Your task to perform on an android device: choose inbox layout in the gmail app Image 0: 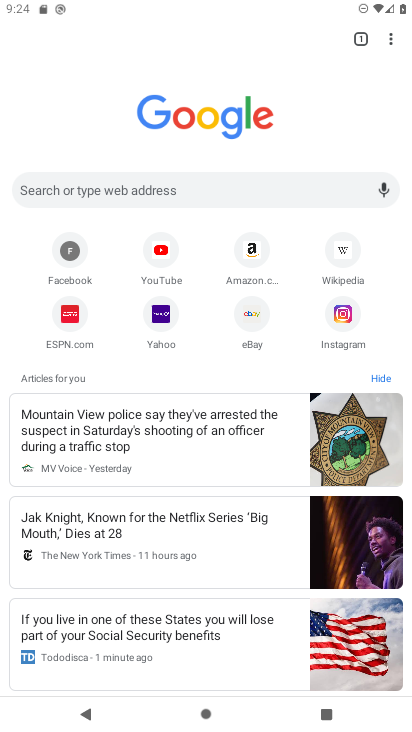
Step 0: press home button
Your task to perform on an android device: choose inbox layout in the gmail app Image 1: 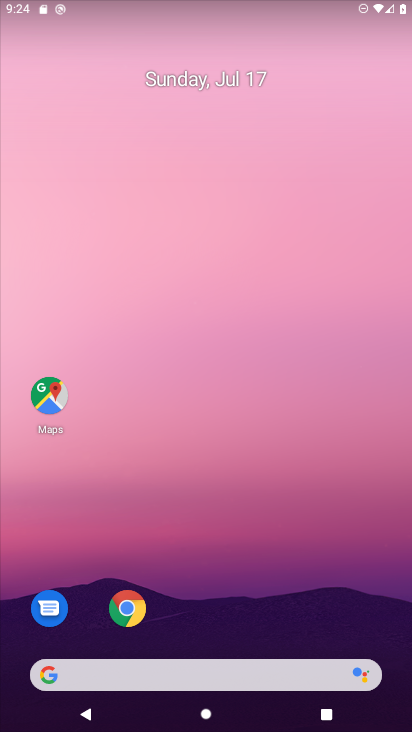
Step 1: drag from (163, 667) to (276, 120)
Your task to perform on an android device: choose inbox layout in the gmail app Image 2: 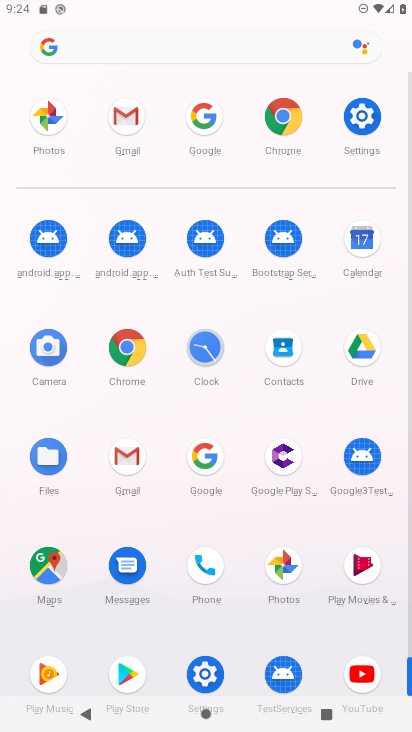
Step 2: click (122, 117)
Your task to perform on an android device: choose inbox layout in the gmail app Image 3: 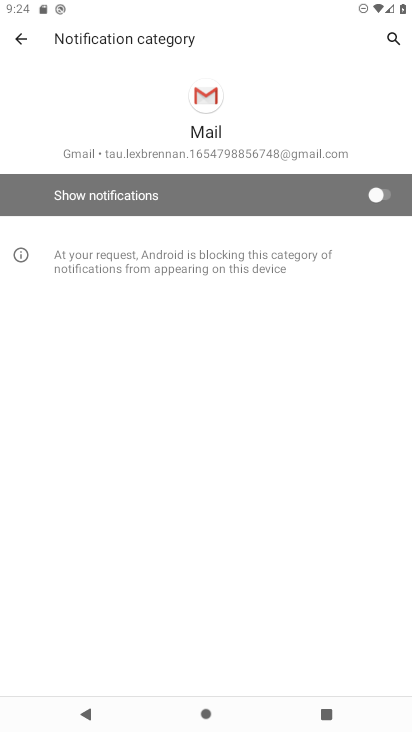
Step 3: press back button
Your task to perform on an android device: choose inbox layout in the gmail app Image 4: 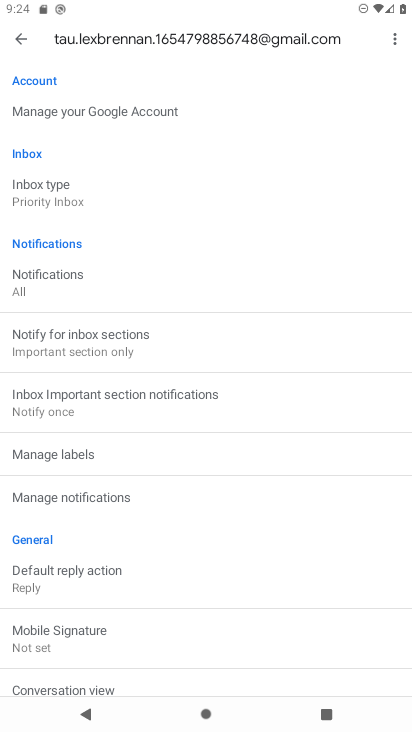
Step 4: click (59, 209)
Your task to perform on an android device: choose inbox layout in the gmail app Image 5: 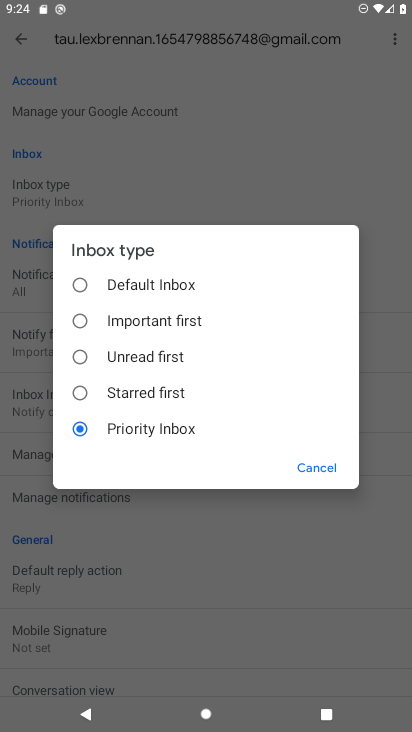
Step 5: click (72, 388)
Your task to perform on an android device: choose inbox layout in the gmail app Image 6: 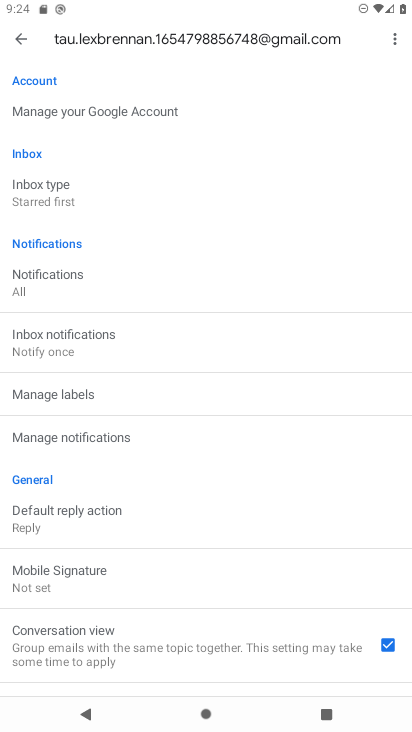
Step 6: task complete